Your task to perform on an android device: open app "HBO Max: Stream TV & Movies" (install if not already installed) Image 0: 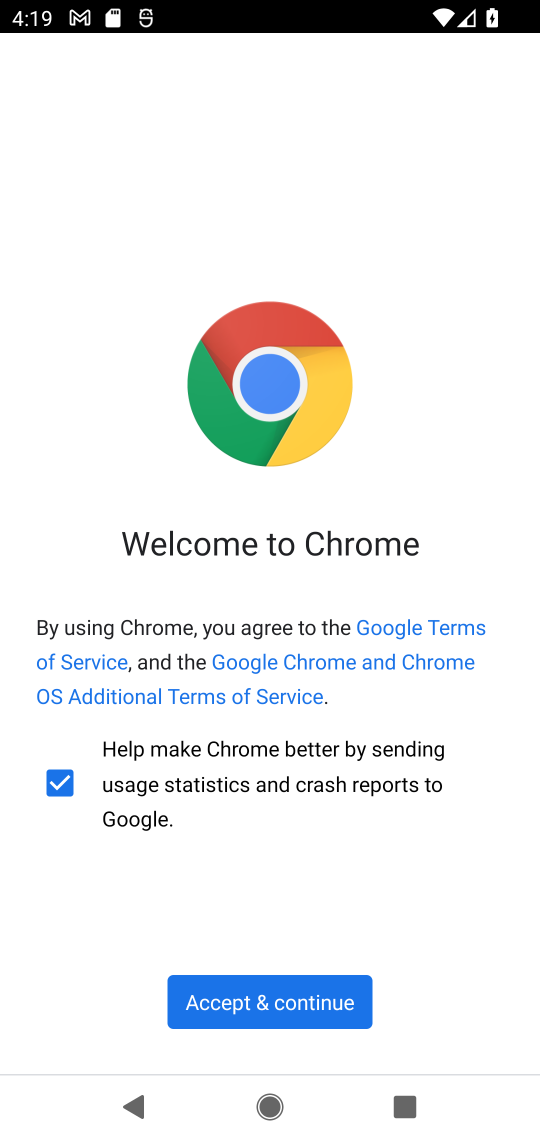
Step 0: press home button
Your task to perform on an android device: open app "HBO Max: Stream TV & Movies" (install if not already installed) Image 1: 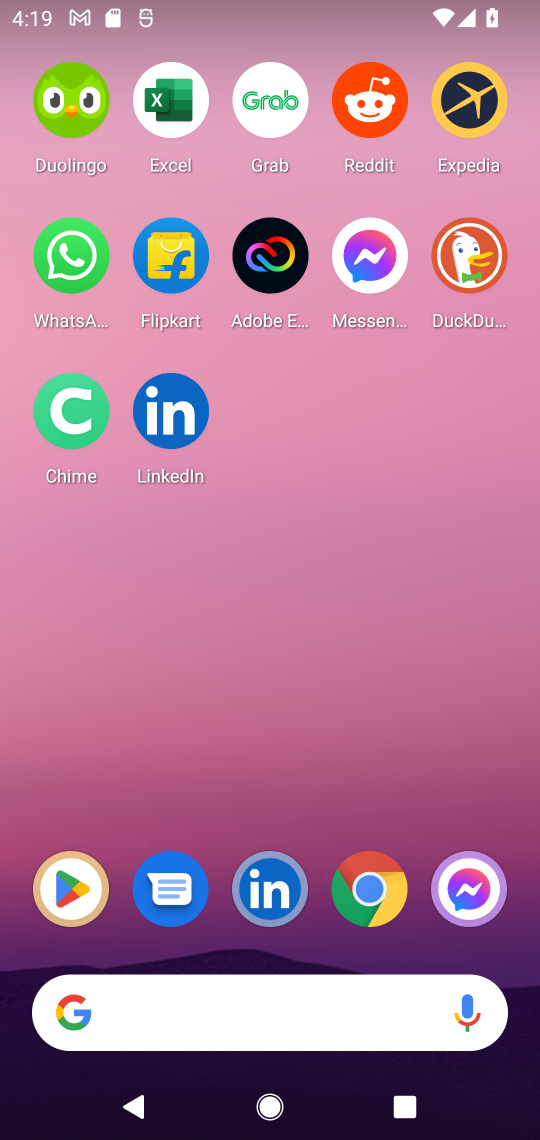
Step 1: drag from (408, 744) to (397, 57)
Your task to perform on an android device: open app "HBO Max: Stream TV & Movies" (install if not already installed) Image 2: 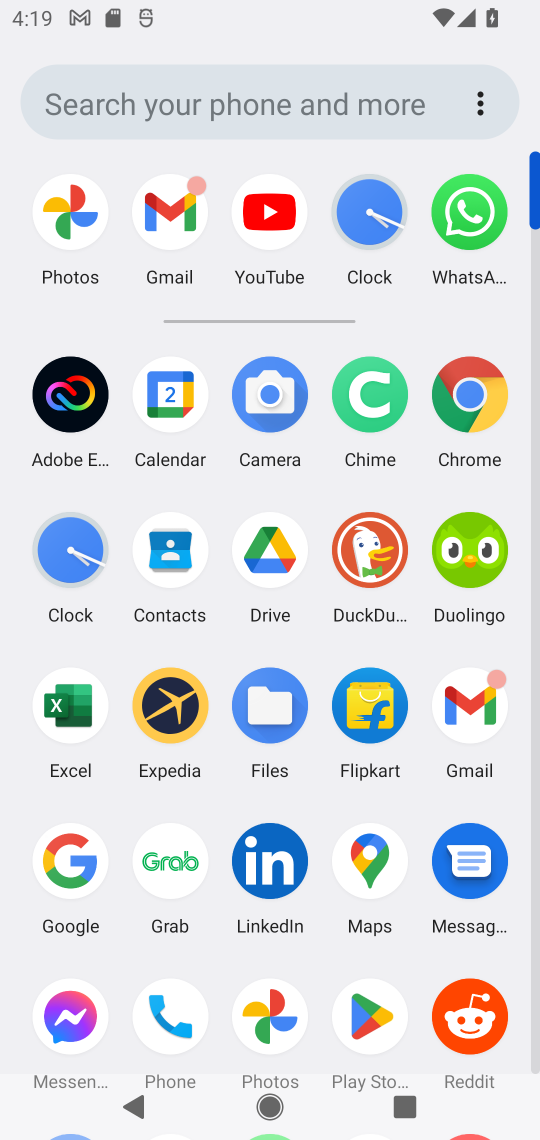
Step 2: click (362, 1028)
Your task to perform on an android device: open app "HBO Max: Stream TV & Movies" (install if not already installed) Image 3: 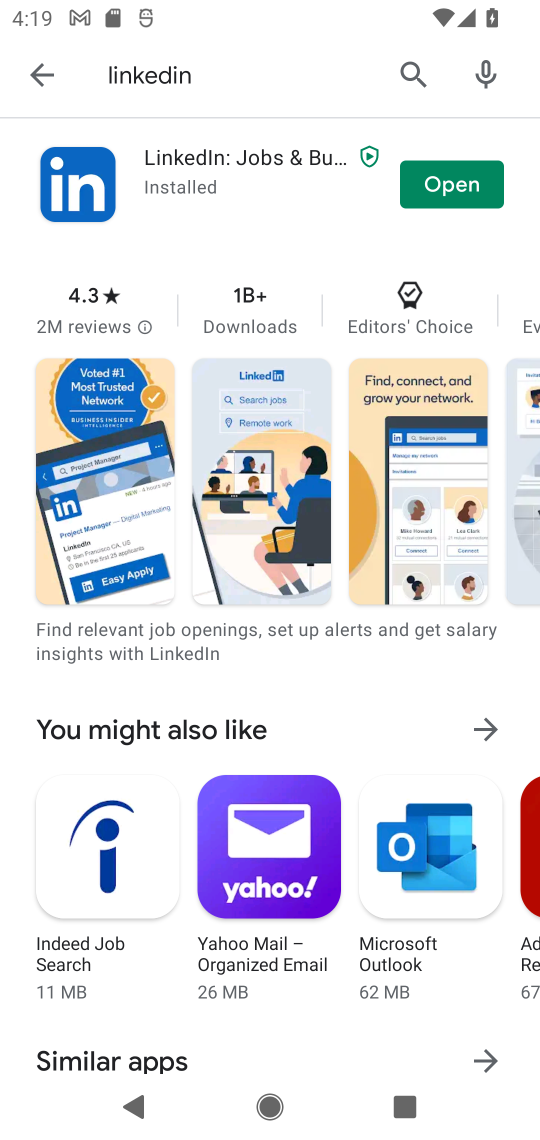
Step 3: click (412, 78)
Your task to perform on an android device: open app "HBO Max: Stream TV & Movies" (install if not already installed) Image 4: 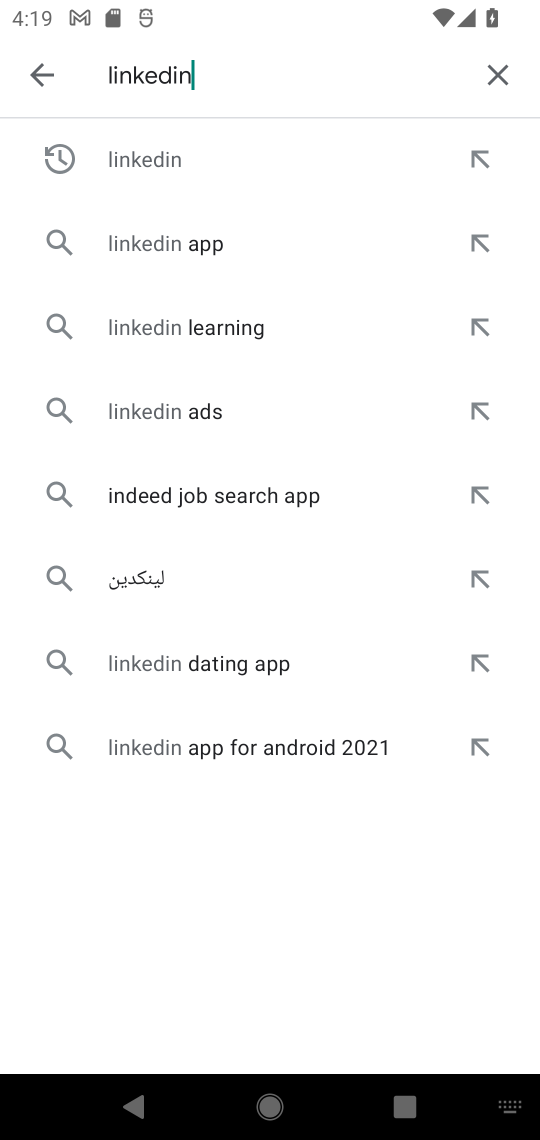
Step 4: click (497, 75)
Your task to perform on an android device: open app "HBO Max: Stream TV & Movies" (install if not already installed) Image 5: 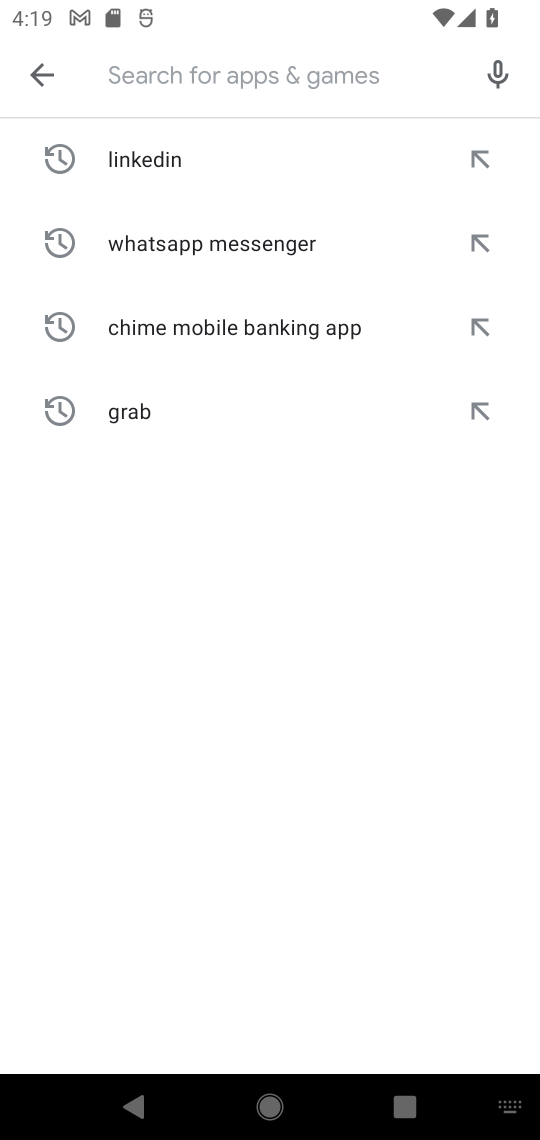
Step 5: click (224, 75)
Your task to perform on an android device: open app "HBO Max: Stream TV & Movies" (install if not already installed) Image 6: 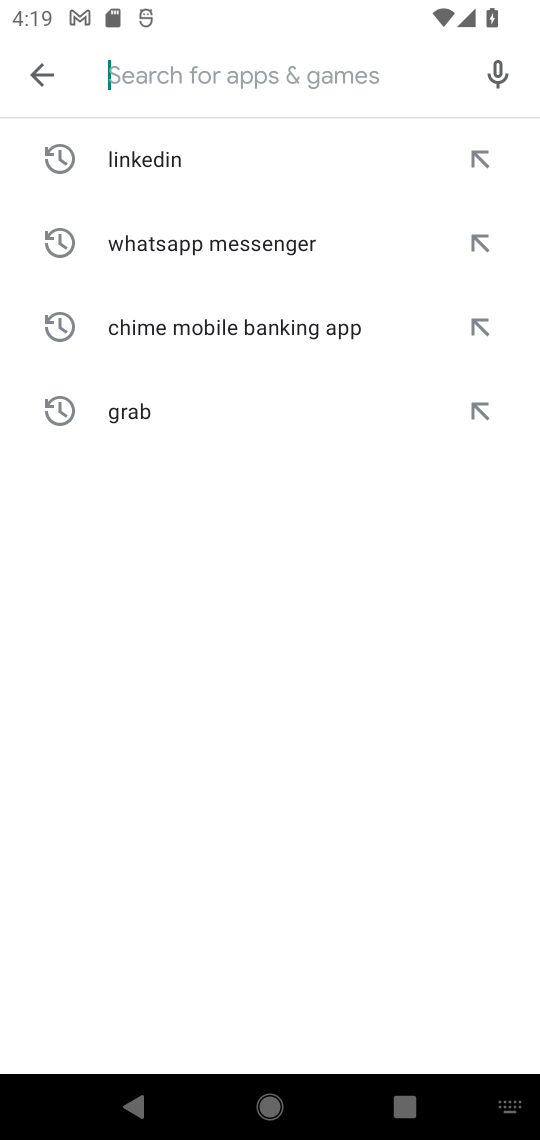
Step 6: type "hbo max stream tv movies"
Your task to perform on an android device: open app "HBO Max: Stream TV & Movies" (install if not already installed) Image 7: 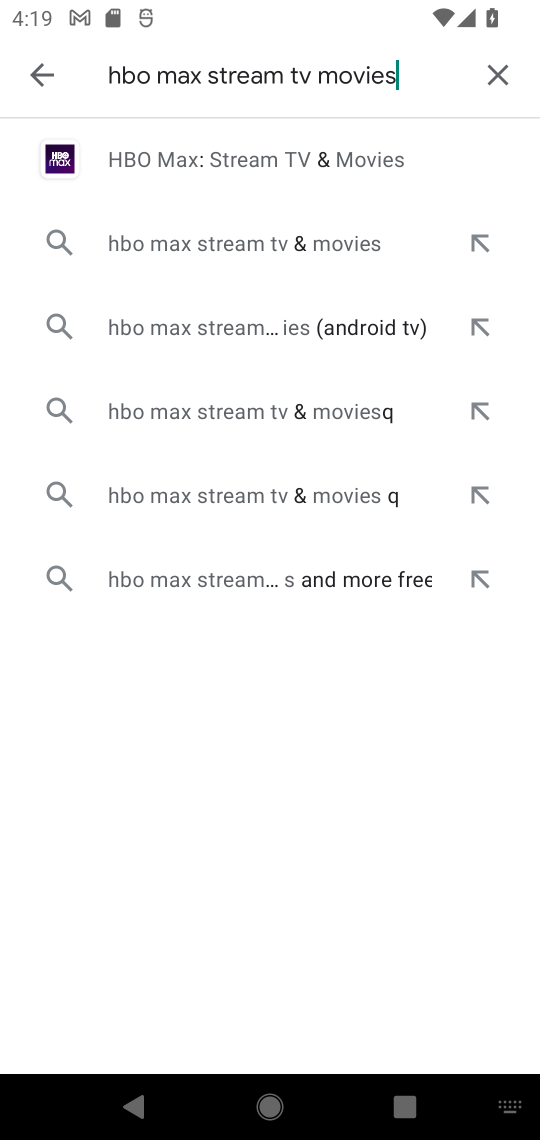
Step 7: click (325, 155)
Your task to perform on an android device: open app "HBO Max: Stream TV & Movies" (install if not already installed) Image 8: 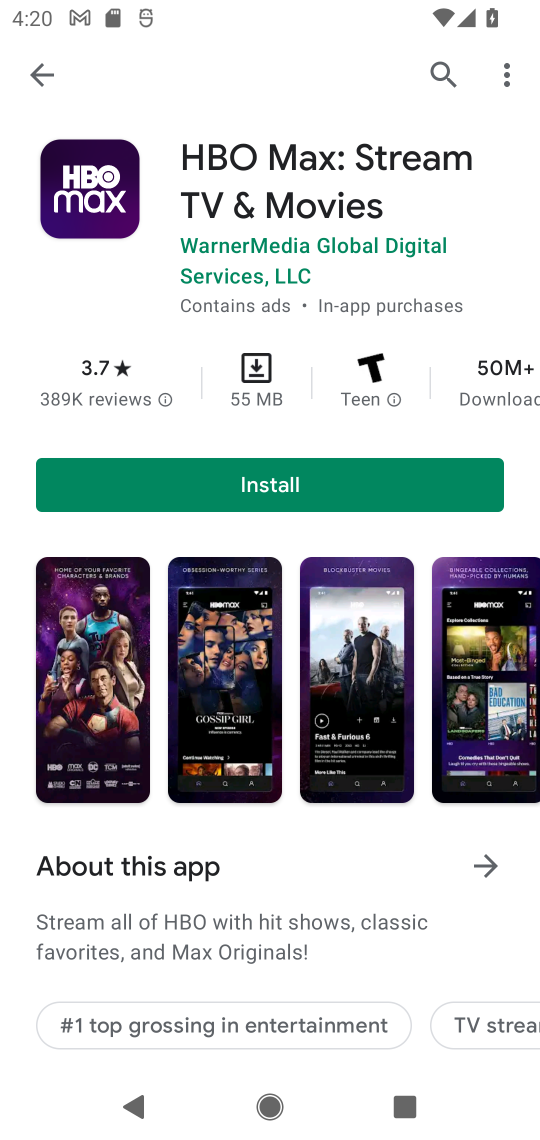
Step 8: click (403, 487)
Your task to perform on an android device: open app "HBO Max: Stream TV & Movies" (install if not already installed) Image 9: 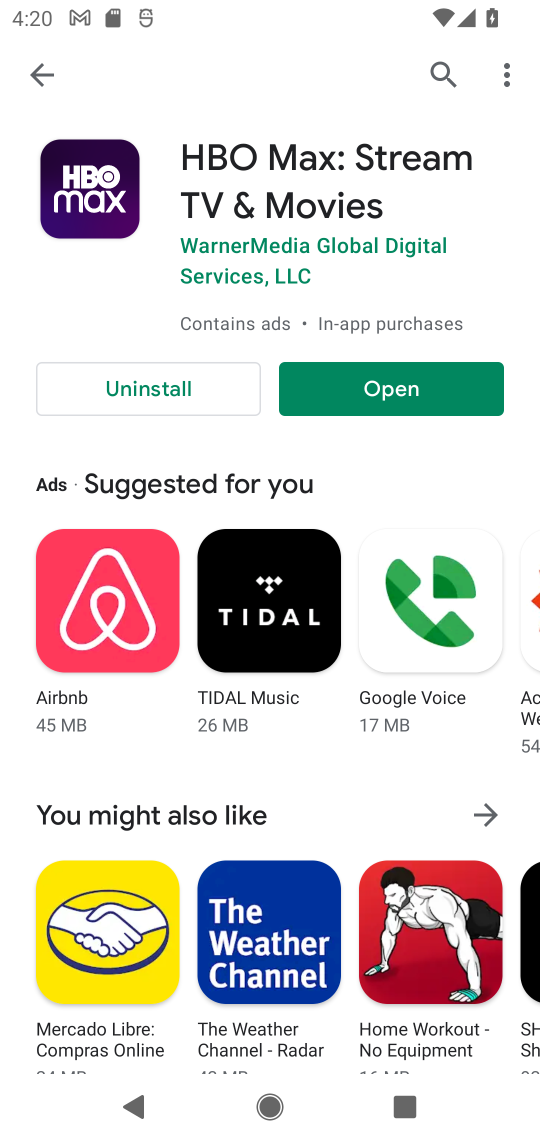
Step 9: click (452, 387)
Your task to perform on an android device: open app "HBO Max: Stream TV & Movies" (install if not already installed) Image 10: 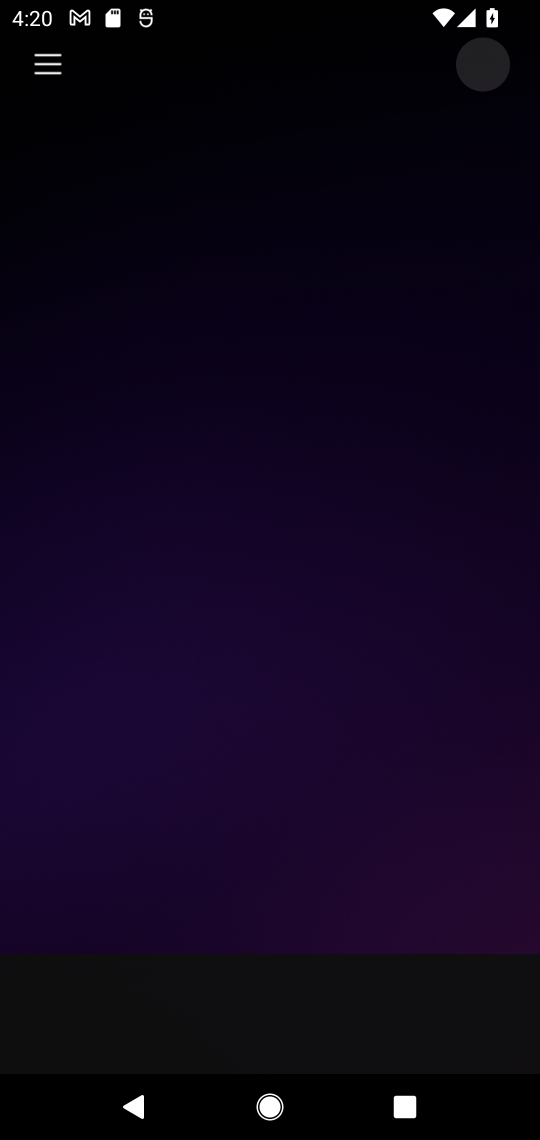
Step 10: task complete